Your task to perform on an android device: check the backup settings in the google photos Image 0: 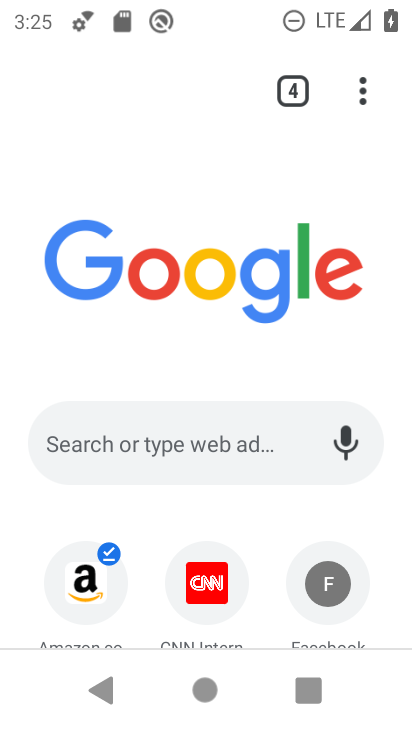
Step 0: press home button
Your task to perform on an android device: check the backup settings in the google photos Image 1: 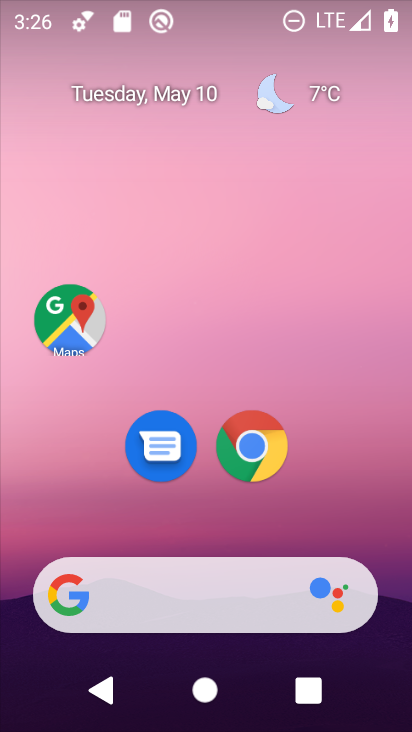
Step 1: drag from (282, 516) to (229, 36)
Your task to perform on an android device: check the backup settings in the google photos Image 2: 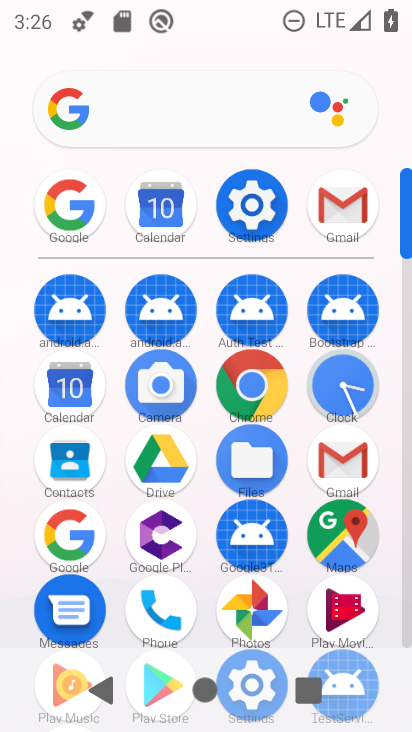
Step 2: click (260, 614)
Your task to perform on an android device: check the backup settings in the google photos Image 3: 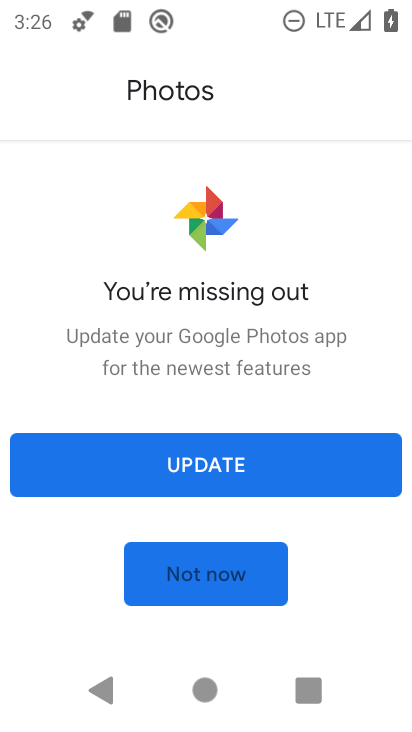
Step 3: click (240, 467)
Your task to perform on an android device: check the backup settings in the google photos Image 4: 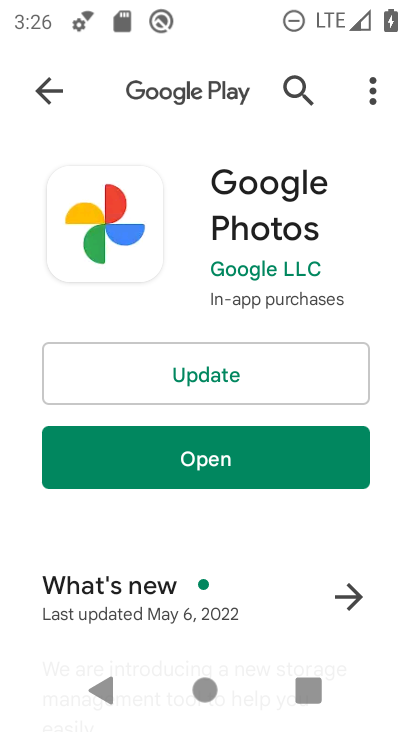
Step 4: click (225, 374)
Your task to perform on an android device: check the backup settings in the google photos Image 5: 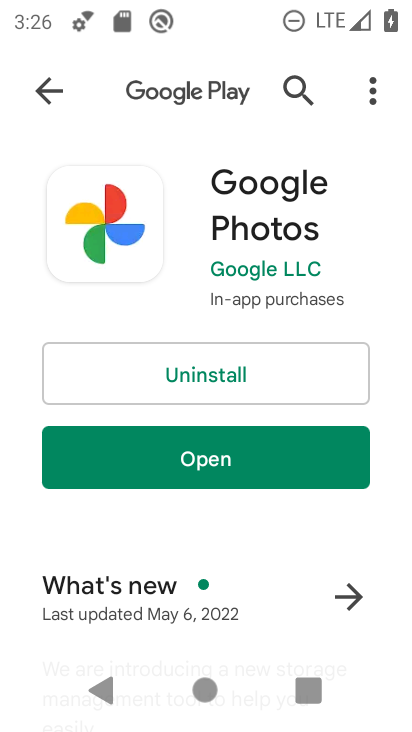
Step 5: click (226, 463)
Your task to perform on an android device: check the backup settings in the google photos Image 6: 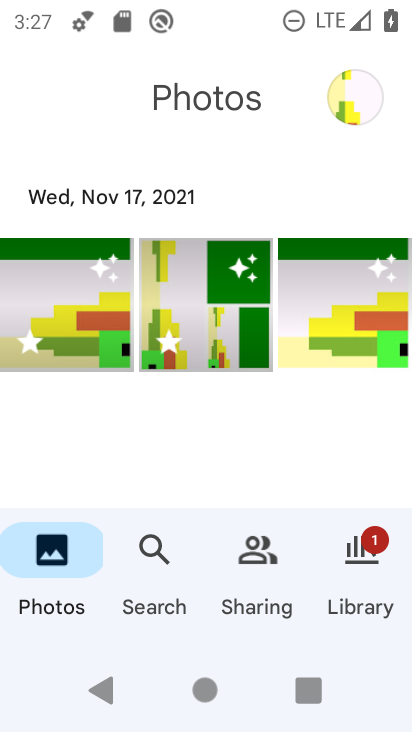
Step 6: click (369, 108)
Your task to perform on an android device: check the backup settings in the google photos Image 7: 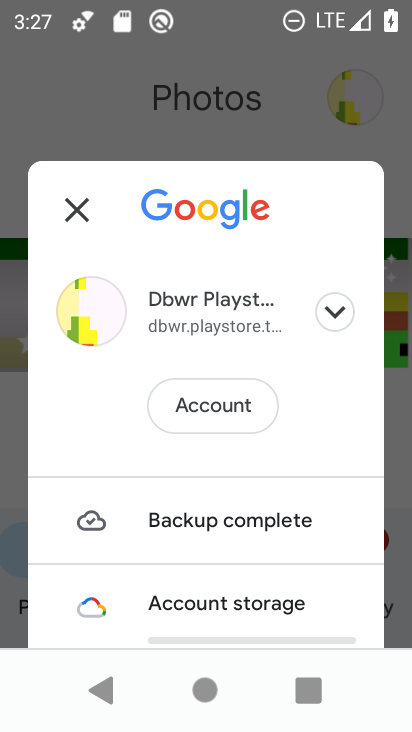
Step 7: drag from (211, 519) to (204, 174)
Your task to perform on an android device: check the backup settings in the google photos Image 8: 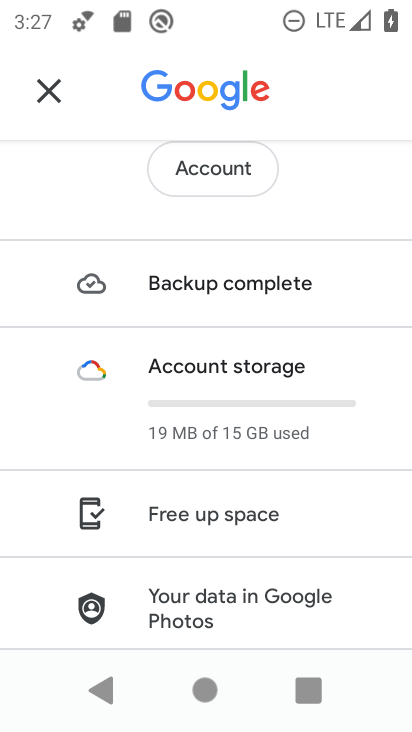
Step 8: drag from (181, 535) to (195, 190)
Your task to perform on an android device: check the backup settings in the google photos Image 9: 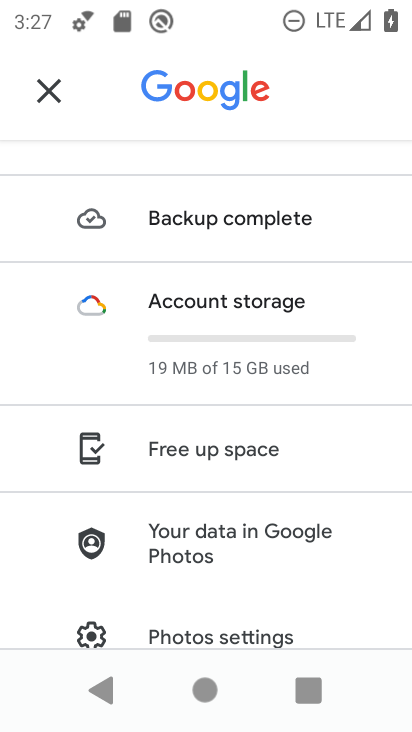
Step 9: drag from (199, 597) to (191, 297)
Your task to perform on an android device: check the backup settings in the google photos Image 10: 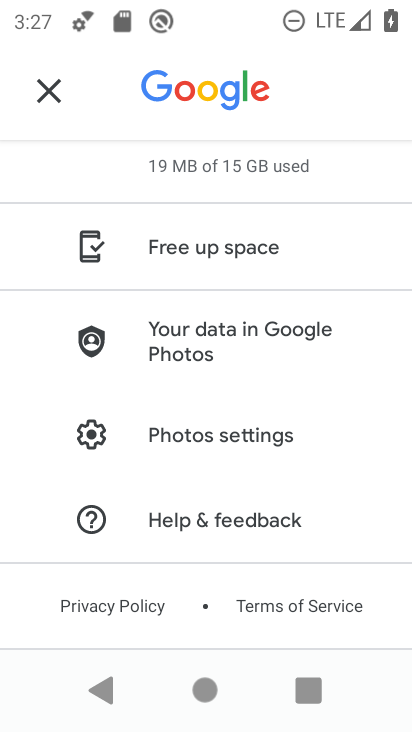
Step 10: click (201, 433)
Your task to perform on an android device: check the backup settings in the google photos Image 11: 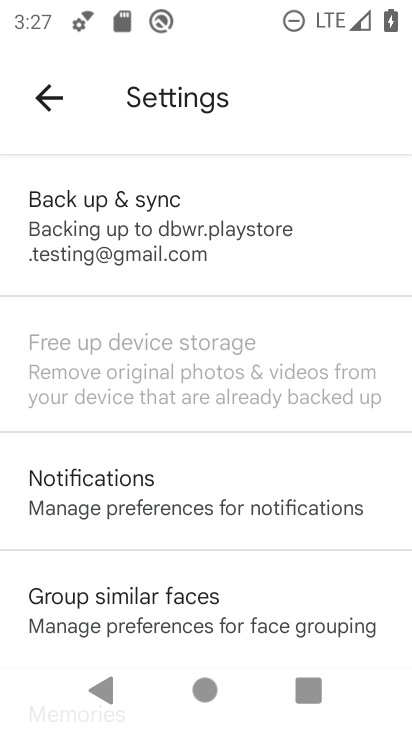
Step 11: click (163, 239)
Your task to perform on an android device: check the backup settings in the google photos Image 12: 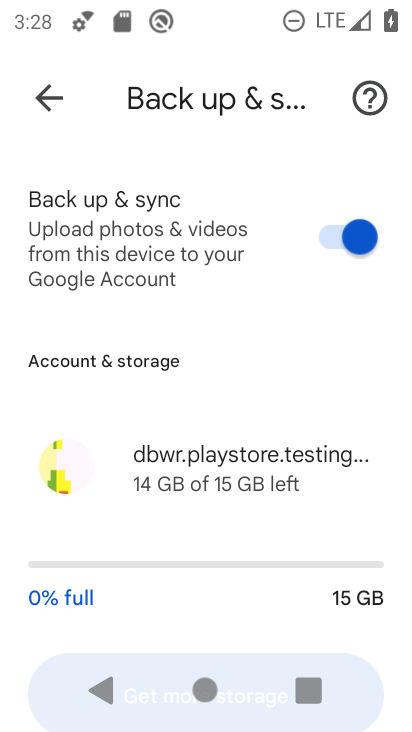
Step 12: task complete